Your task to perform on an android device: move a message to another label in the gmail app Image 0: 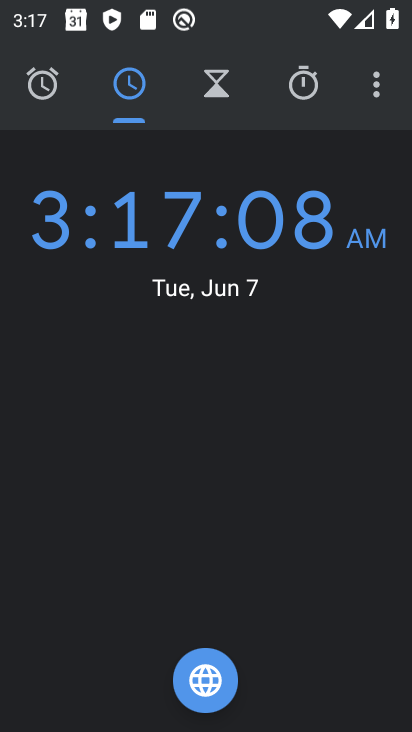
Step 0: press home button
Your task to perform on an android device: move a message to another label in the gmail app Image 1: 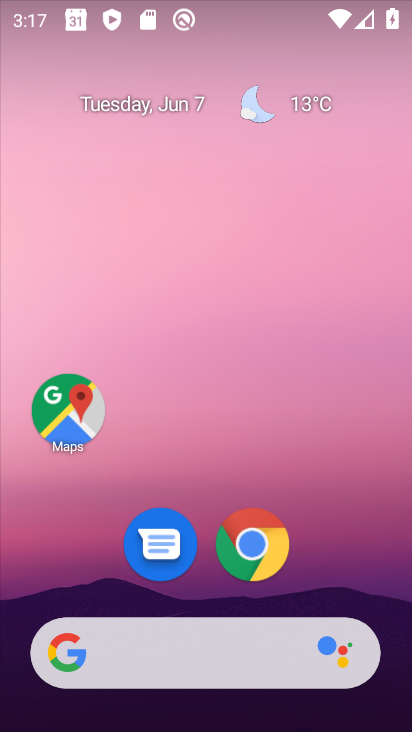
Step 1: drag from (212, 595) to (253, 67)
Your task to perform on an android device: move a message to another label in the gmail app Image 2: 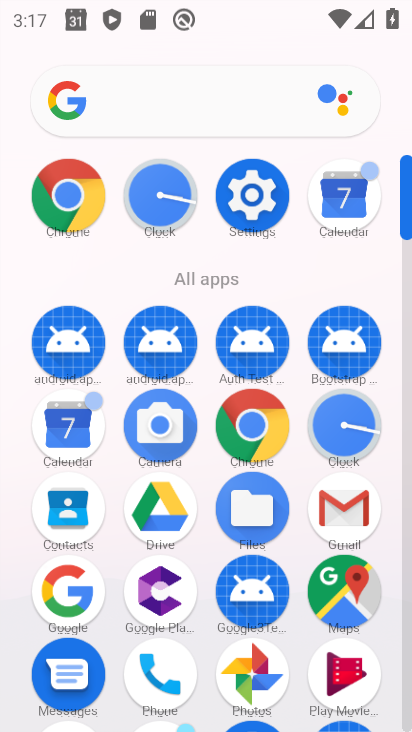
Step 2: click (341, 497)
Your task to perform on an android device: move a message to another label in the gmail app Image 3: 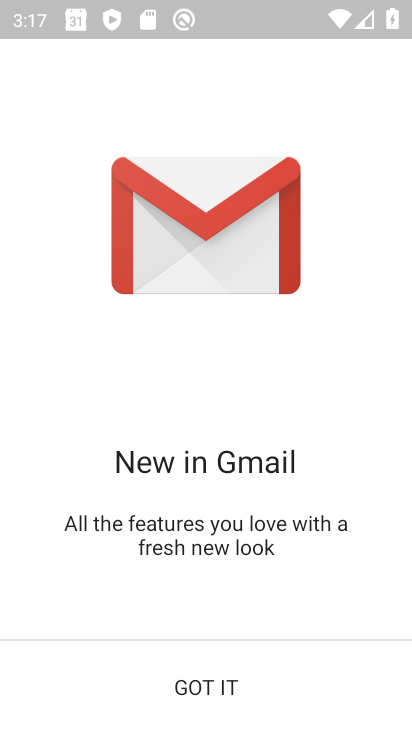
Step 3: click (214, 699)
Your task to perform on an android device: move a message to another label in the gmail app Image 4: 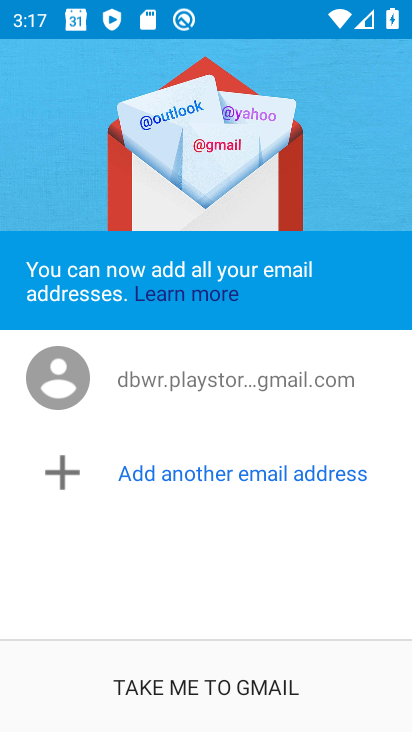
Step 4: click (214, 699)
Your task to perform on an android device: move a message to another label in the gmail app Image 5: 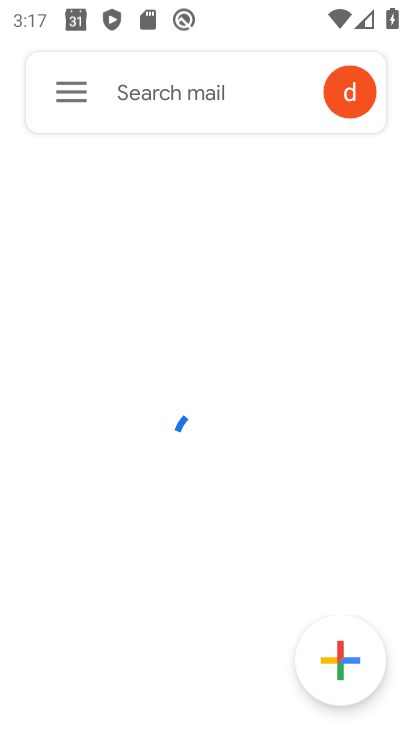
Step 5: task complete